Your task to perform on an android device: When is my next meeting? Image 0: 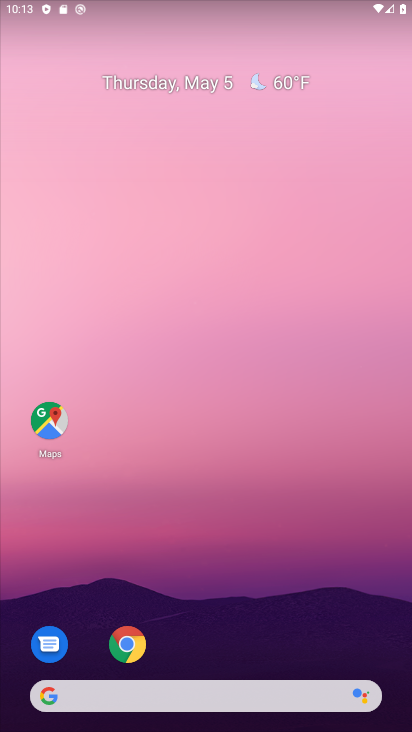
Step 0: drag from (362, 631) to (356, 123)
Your task to perform on an android device: When is my next meeting? Image 1: 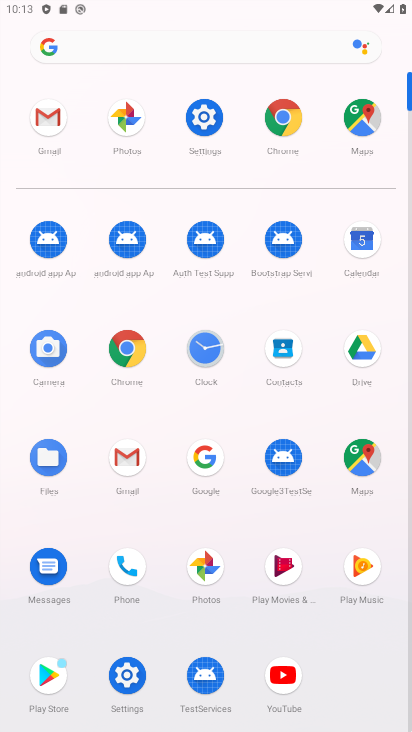
Step 1: click (362, 233)
Your task to perform on an android device: When is my next meeting? Image 2: 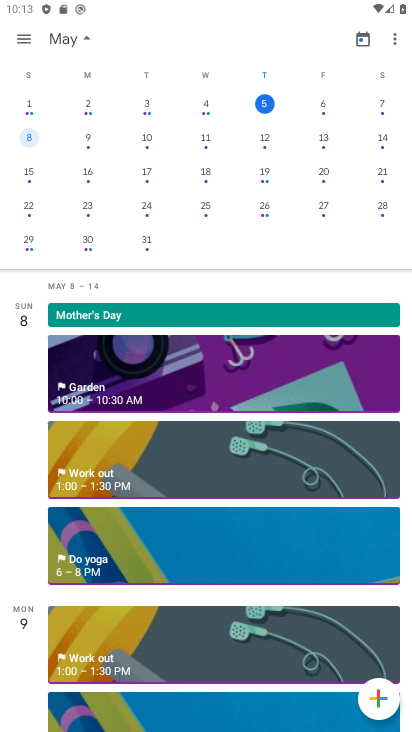
Step 2: drag from (15, 544) to (46, 392)
Your task to perform on an android device: When is my next meeting? Image 3: 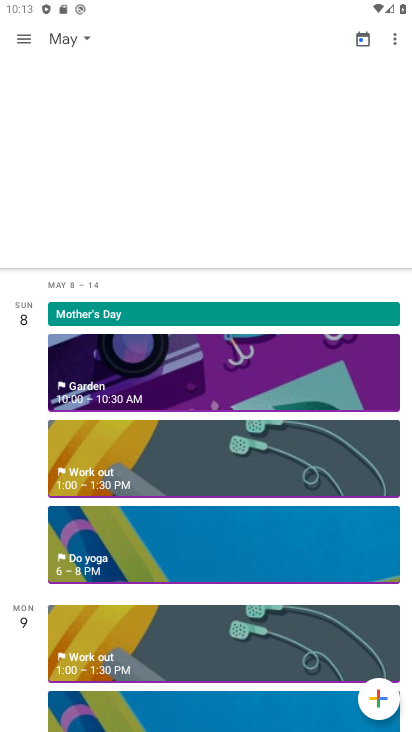
Step 3: drag from (34, 690) to (30, 364)
Your task to perform on an android device: When is my next meeting? Image 4: 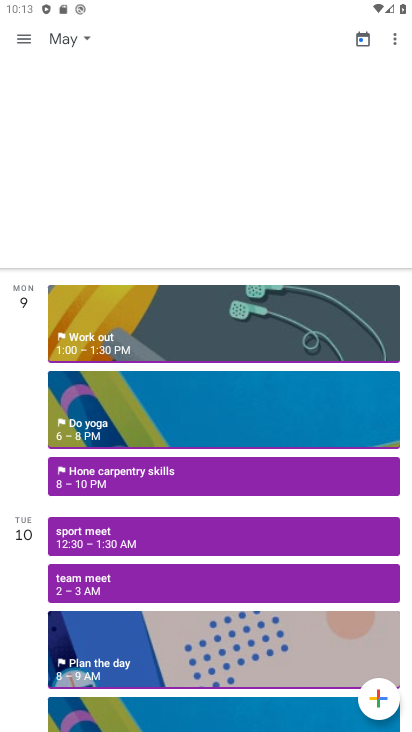
Step 4: drag from (26, 606) to (25, 370)
Your task to perform on an android device: When is my next meeting? Image 5: 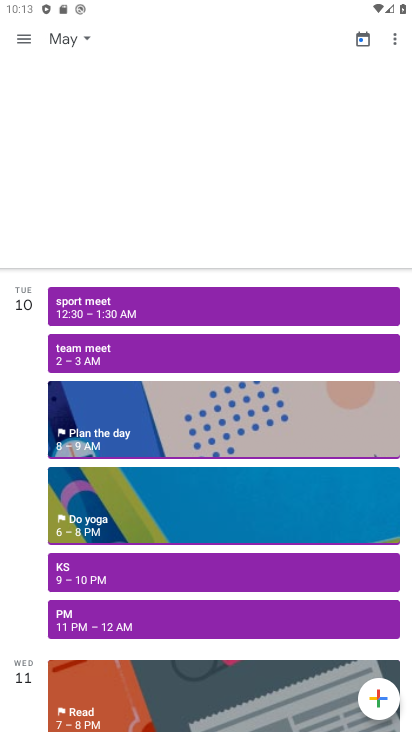
Step 5: click (82, 347)
Your task to perform on an android device: When is my next meeting? Image 6: 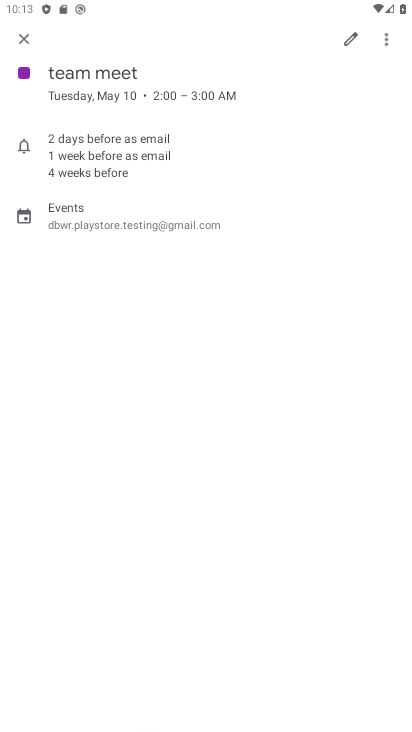
Step 6: task complete